Your task to perform on an android device: turn on the 12-hour format for clock Image 0: 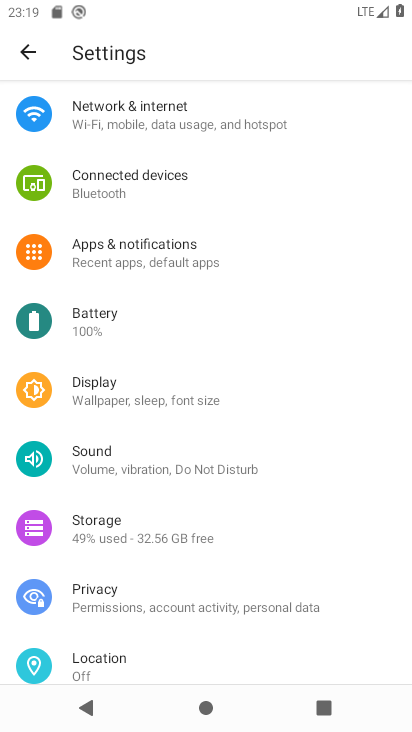
Step 0: press home button
Your task to perform on an android device: turn on the 12-hour format for clock Image 1: 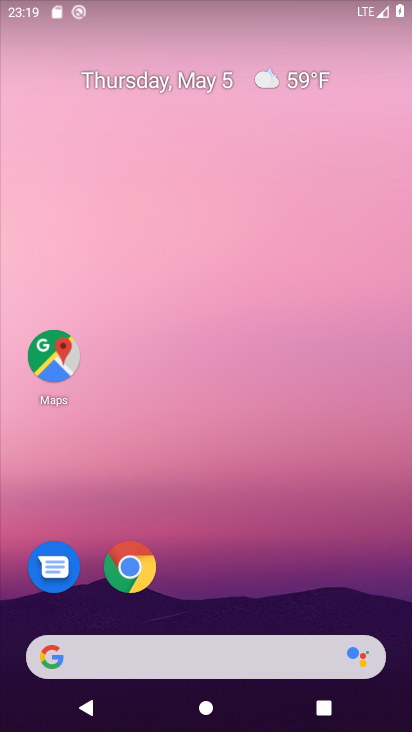
Step 1: drag from (303, 531) to (225, 0)
Your task to perform on an android device: turn on the 12-hour format for clock Image 2: 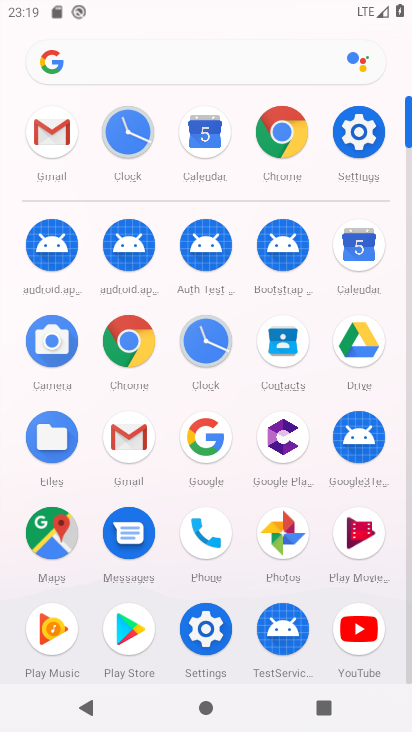
Step 2: click (129, 133)
Your task to perform on an android device: turn on the 12-hour format for clock Image 3: 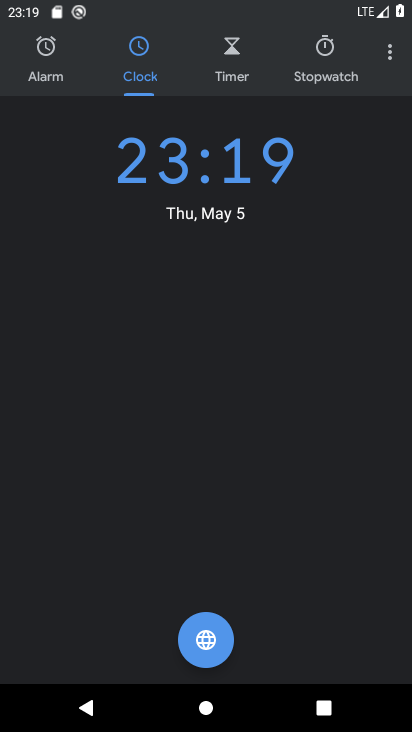
Step 3: click (388, 52)
Your task to perform on an android device: turn on the 12-hour format for clock Image 4: 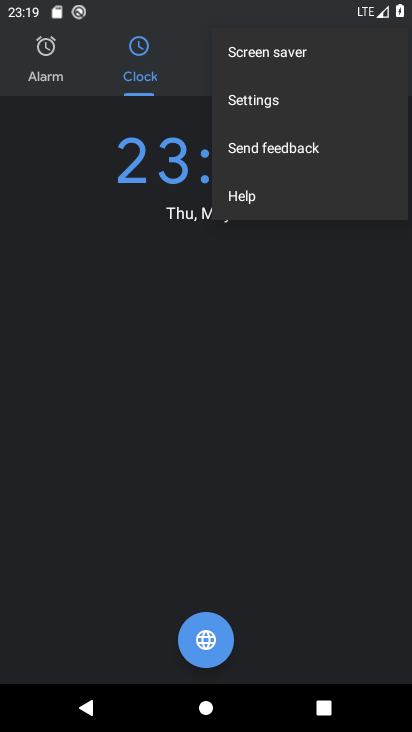
Step 4: click (254, 97)
Your task to perform on an android device: turn on the 12-hour format for clock Image 5: 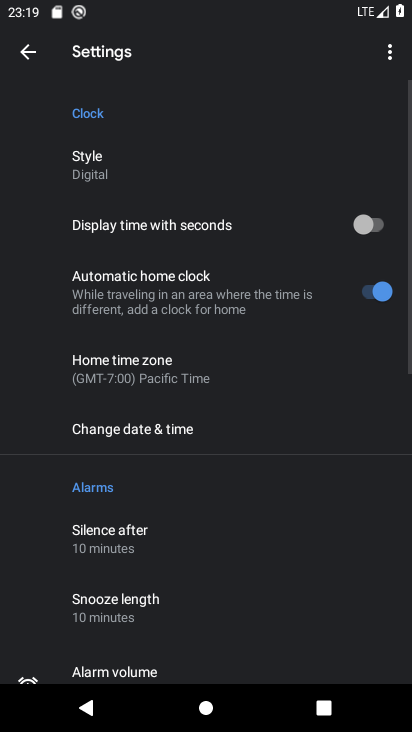
Step 5: click (136, 431)
Your task to perform on an android device: turn on the 12-hour format for clock Image 6: 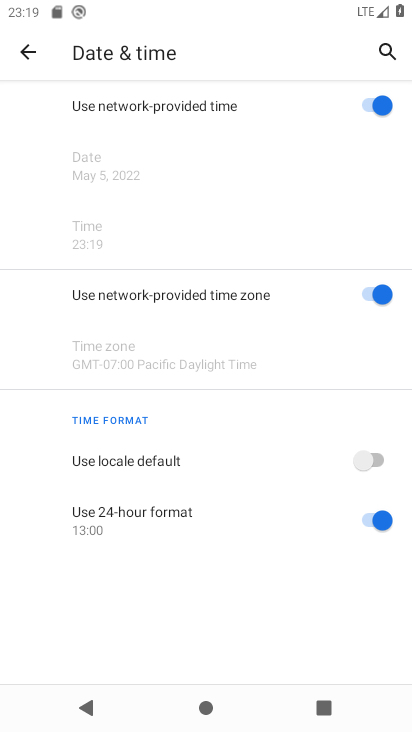
Step 6: click (385, 521)
Your task to perform on an android device: turn on the 12-hour format for clock Image 7: 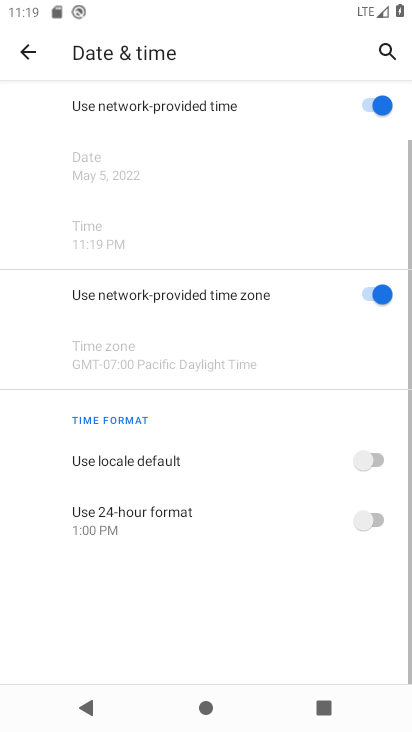
Step 7: click (375, 459)
Your task to perform on an android device: turn on the 12-hour format for clock Image 8: 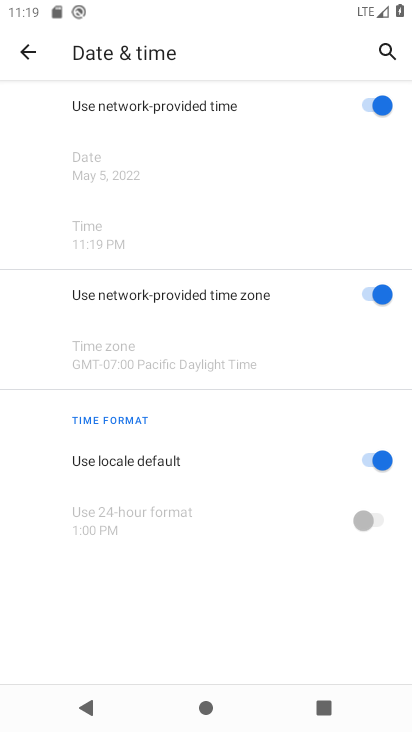
Step 8: task complete